Your task to perform on an android device: What's on my calendar tomorrow? Image 0: 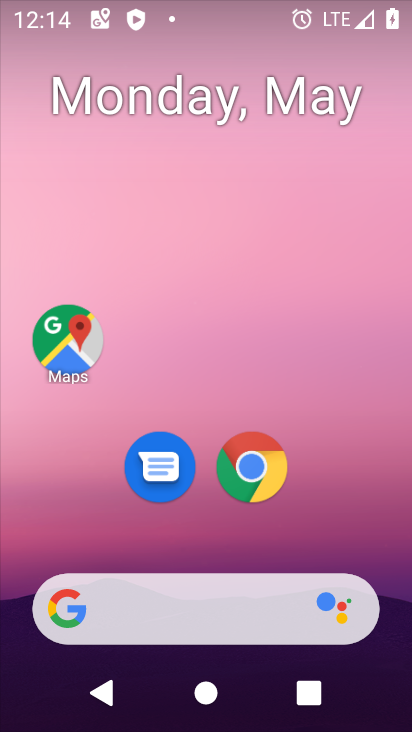
Step 0: drag from (365, 553) to (364, 12)
Your task to perform on an android device: What's on my calendar tomorrow? Image 1: 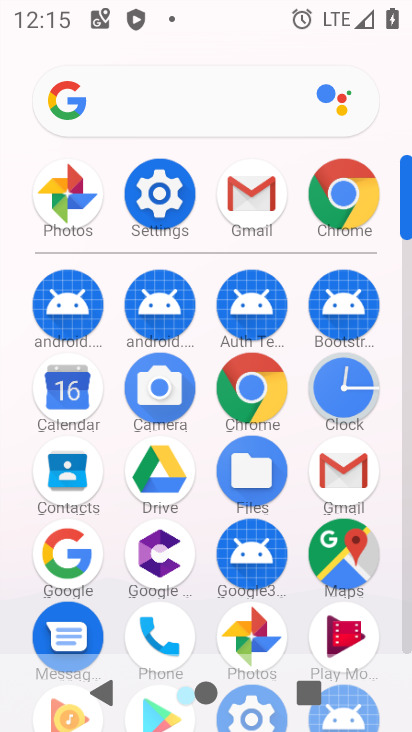
Step 1: click (58, 398)
Your task to perform on an android device: What's on my calendar tomorrow? Image 2: 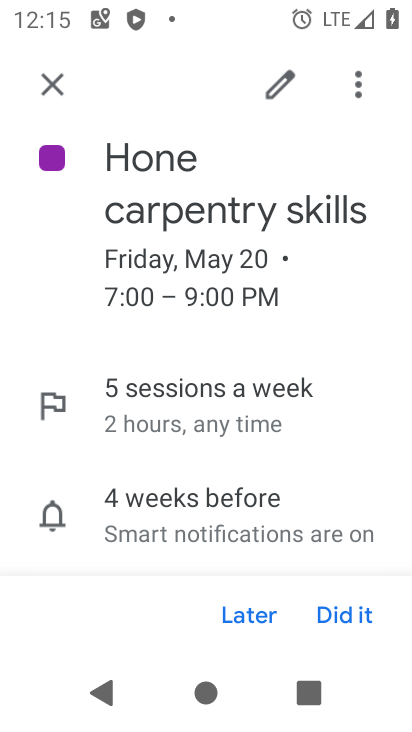
Step 2: click (55, 91)
Your task to perform on an android device: What's on my calendar tomorrow? Image 3: 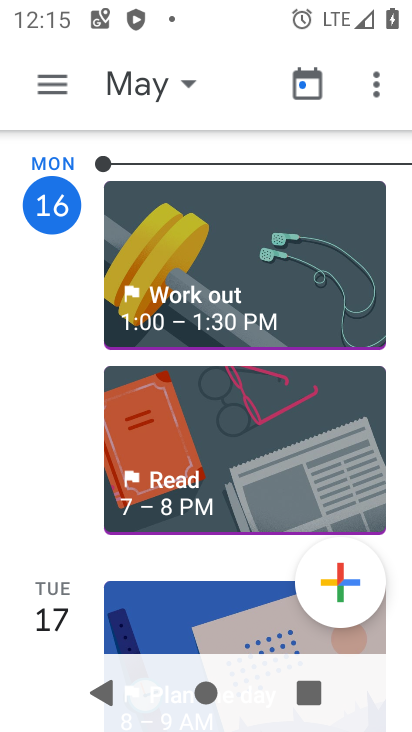
Step 3: drag from (227, 499) to (237, 145)
Your task to perform on an android device: What's on my calendar tomorrow? Image 4: 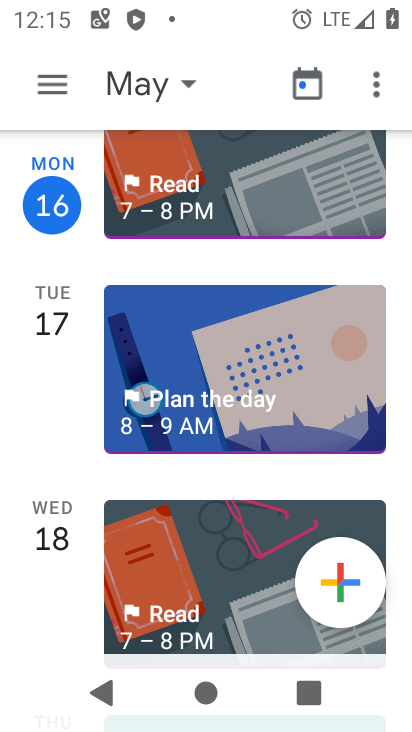
Step 4: drag from (230, 564) to (227, 134)
Your task to perform on an android device: What's on my calendar tomorrow? Image 5: 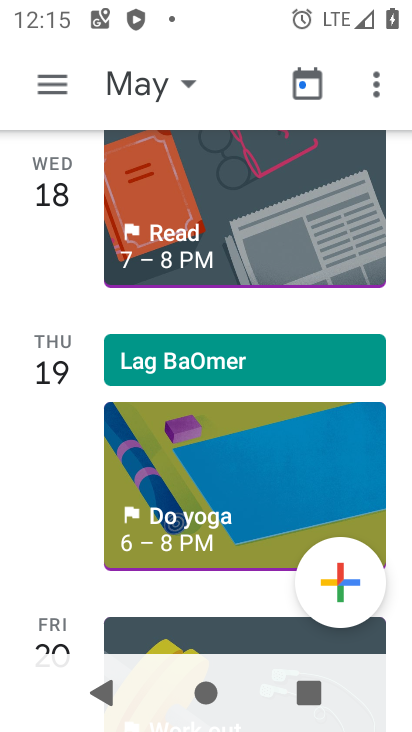
Step 5: drag from (228, 231) to (247, 556)
Your task to perform on an android device: What's on my calendar tomorrow? Image 6: 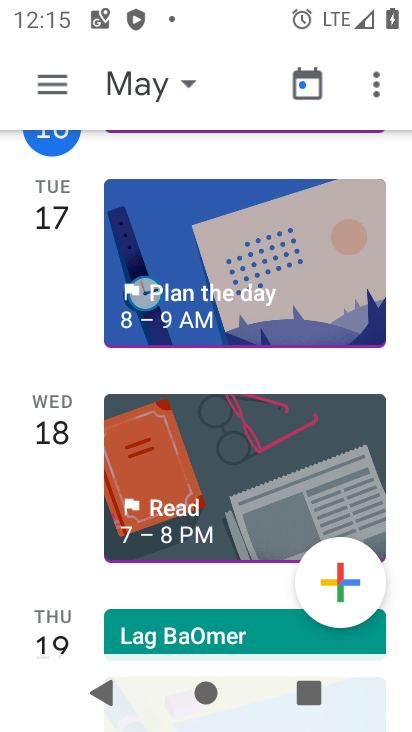
Step 6: drag from (243, 307) to (163, 622)
Your task to perform on an android device: What's on my calendar tomorrow? Image 7: 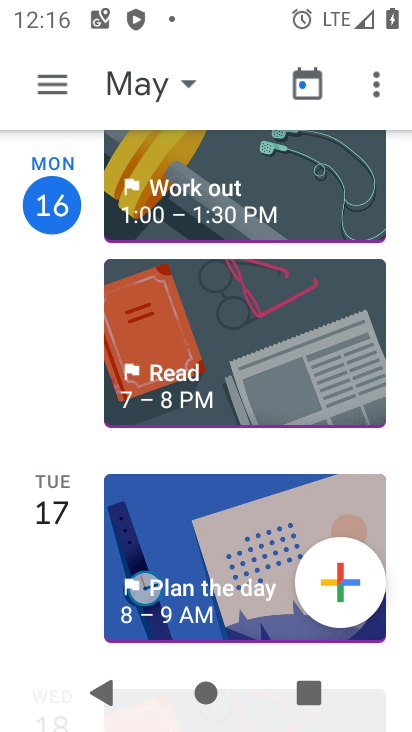
Step 7: drag from (191, 552) to (197, 371)
Your task to perform on an android device: What's on my calendar tomorrow? Image 8: 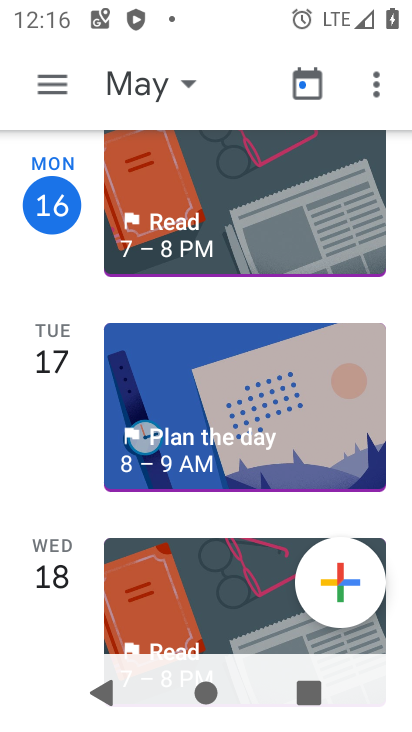
Step 8: click (185, 429)
Your task to perform on an android device: What's on my calendar tomorrow? Image 9: 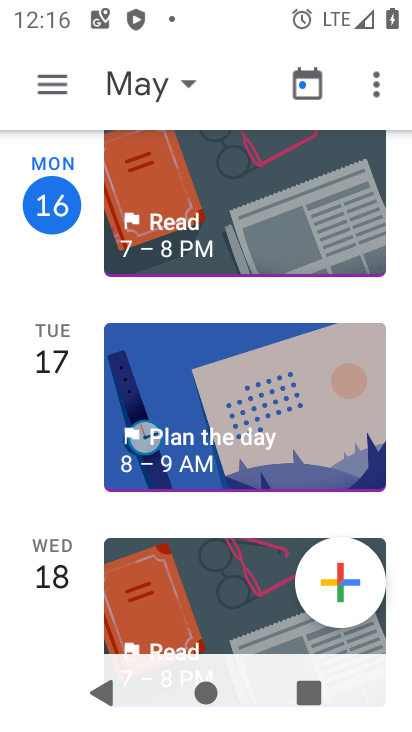
Step 9: click (247, 420)
Your task to perform on an android device: What's on my calendar tomorrow? Image 10: 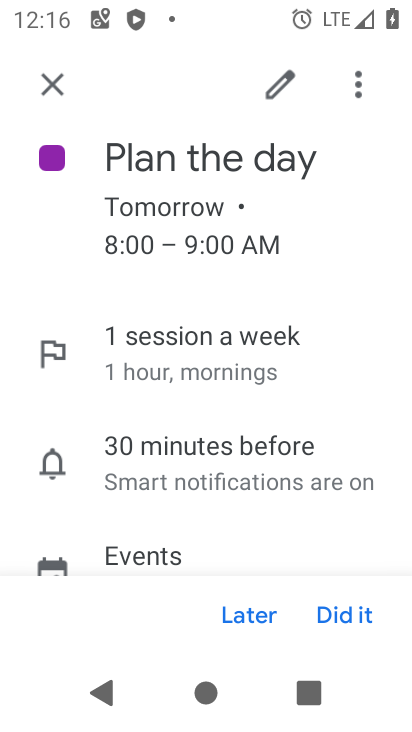
Step 10: task complete